Your task to perform on an android device: Open Maps and search for coffee Image 0: 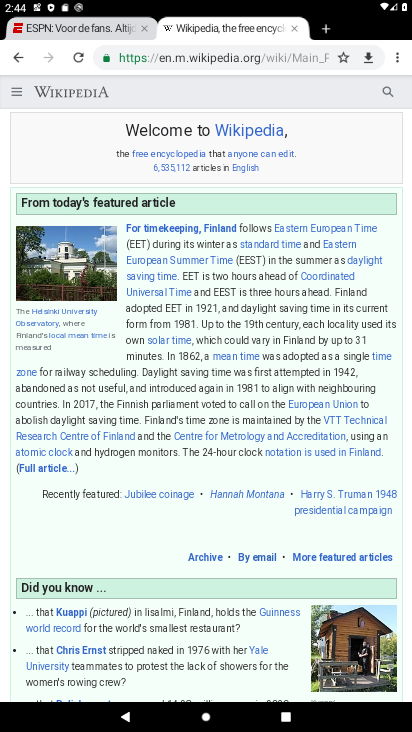
Step 0: press home button
Your task to perform on an android device: Open Maps and search for coffee Image 1: 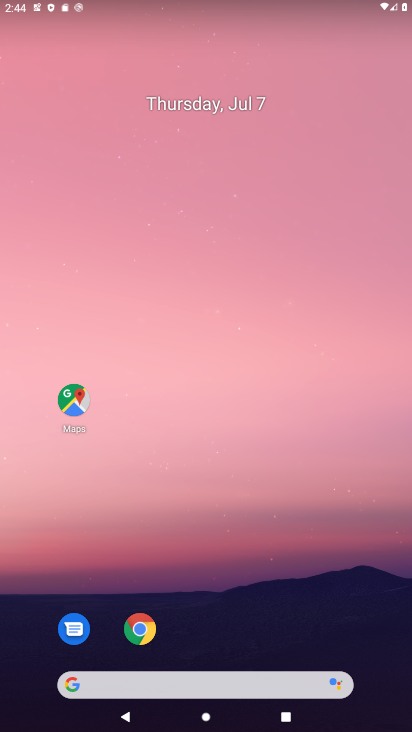
Step 1: click (79, 412)
Your task to perform on an android device: Open Maps and search for coffee Image 2: 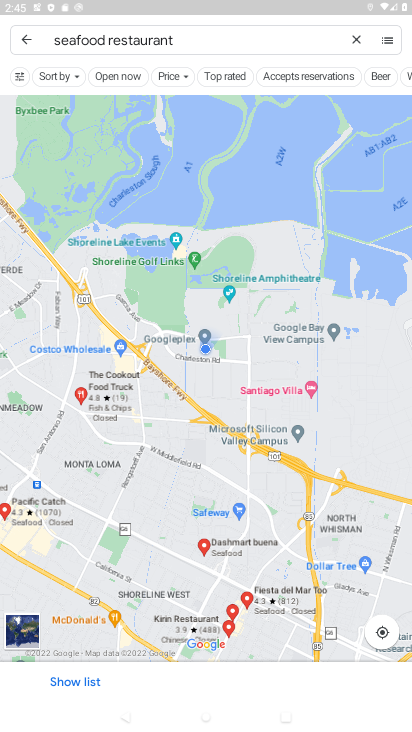
Step 2: click (358, 44)
Your task to perform on an android device: Open Maps and search for coffee Image 3: 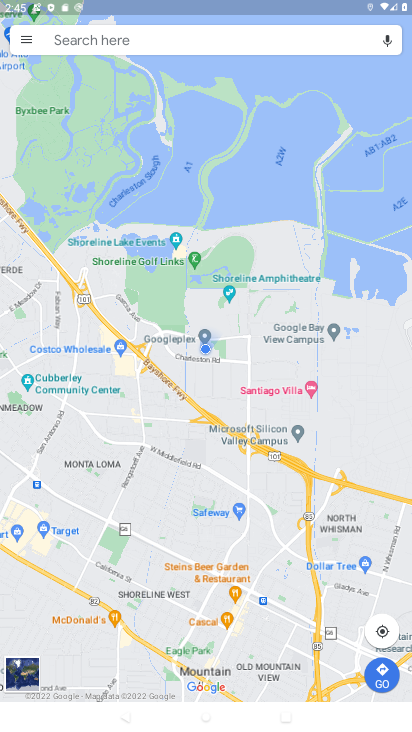
Step 3: click (351, 42)
Your task to perform on an android device: Open Maps and search for coffee Image 4: 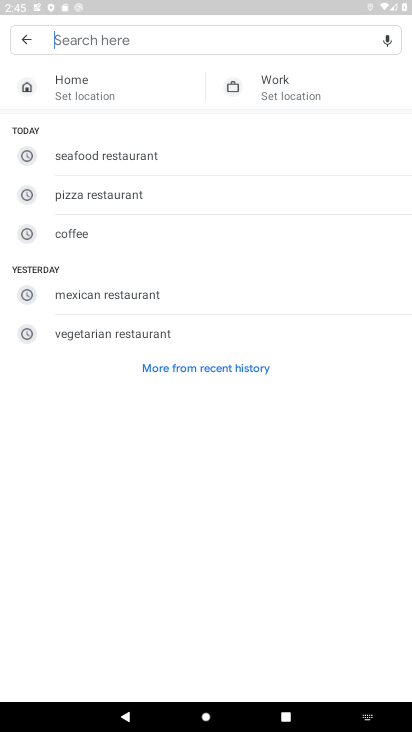
Step 4: click (89, 231)
Your task to perform on an android device: Open Maps and search for coffee Image 5: 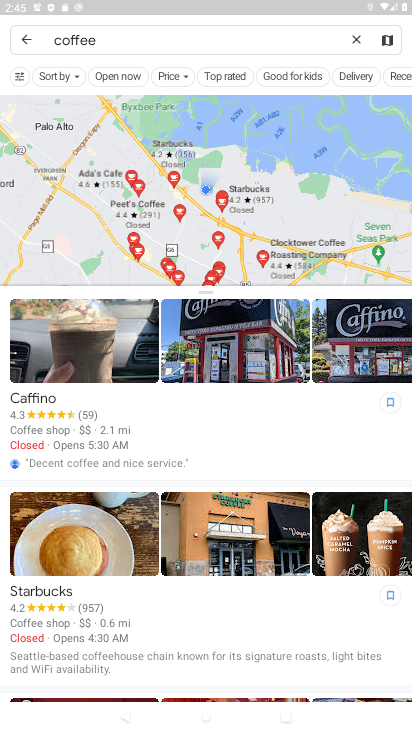
Step 5: task complete